Your task to perform on an android device: Open eBay Image 0: 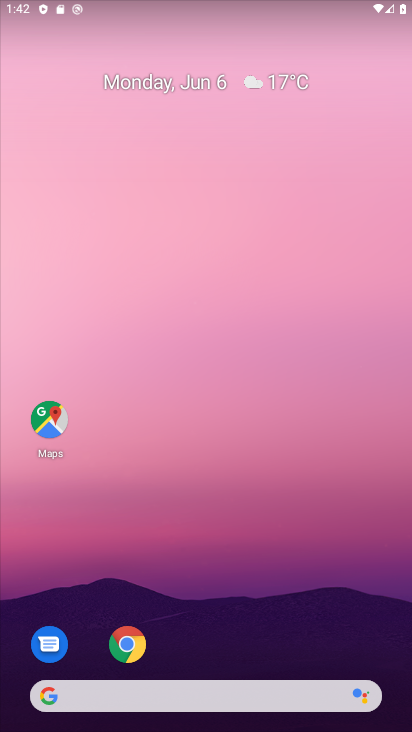
Step 0: click (125, 645)
Your task to perform on an android device: Open eBay Image 1: 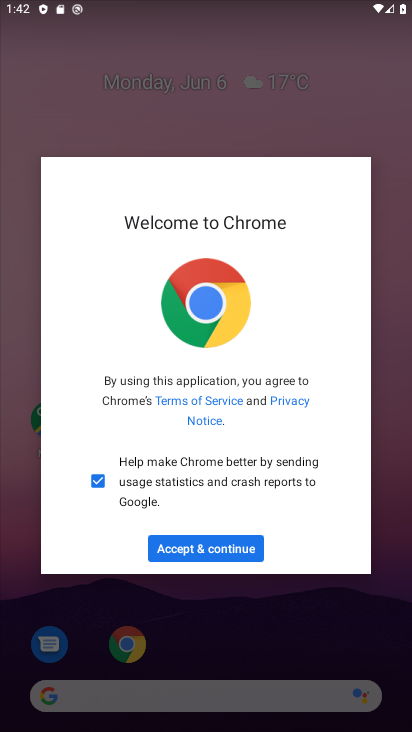
Step 1: press home button
Your task to perform on an android device: Open eBay Image 2: 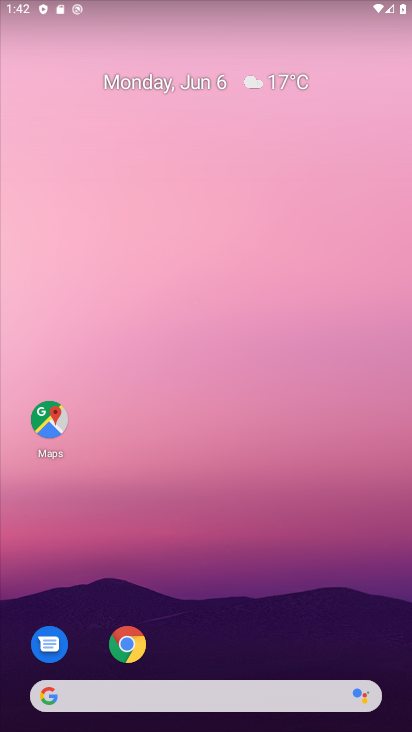
Step 2: click (132, 647)
Your task to perform on an android device: Open eBay Image 3: 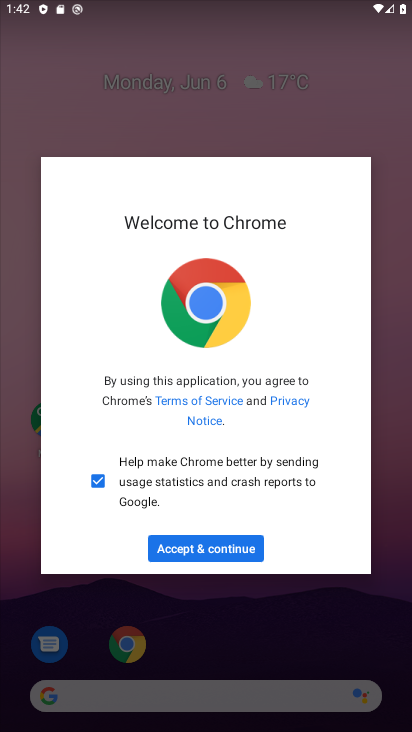
Step 3: click (209, 551)
Your task to perform on an android device: Open eBay Image 4: 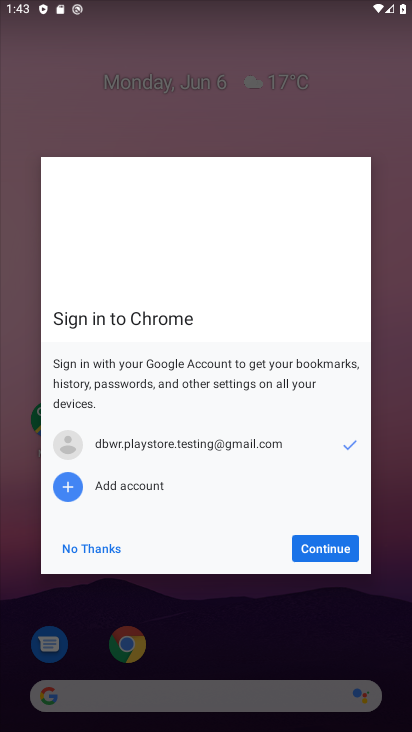
Step 4: click (304, 558)
Your task to perform on an android device: Open eBay Image 5: 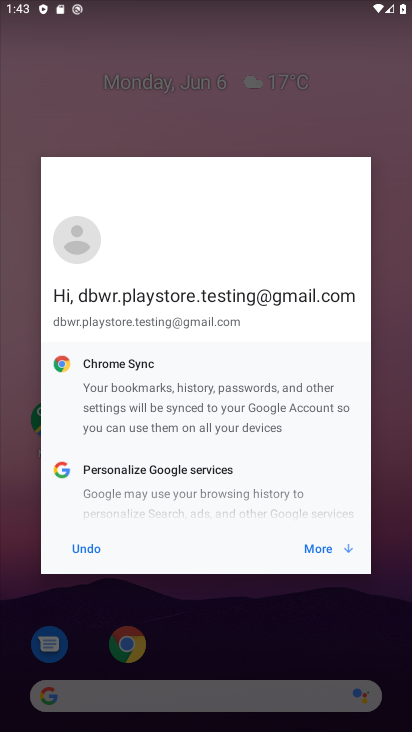
Step 5: click (322, 555)
Your task to perform on an android device: Open eBay Image 6: 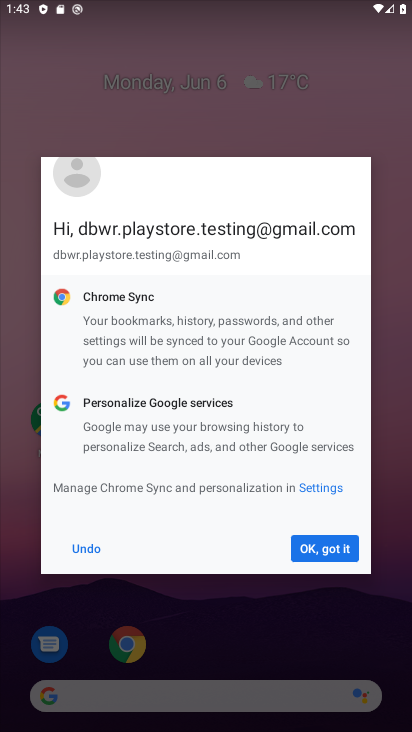
Step 6: click (324, 555)
Your task to perform on an android device: Open eBay Image 7: 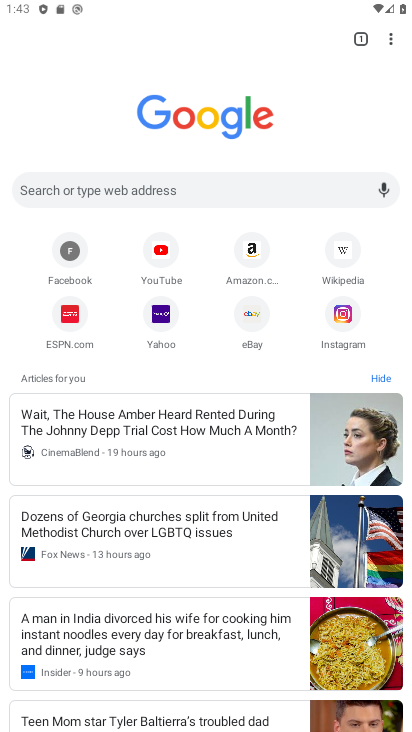
Step 7: click (250, 328)
Your task to perform on an android device: Open eBay Image 8: 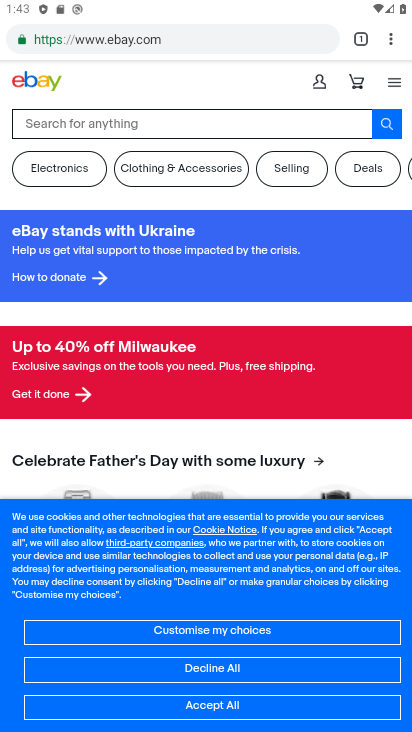
Step 8: click (209, 715)
Your task to perform on an android device: Open eBay Image 9: 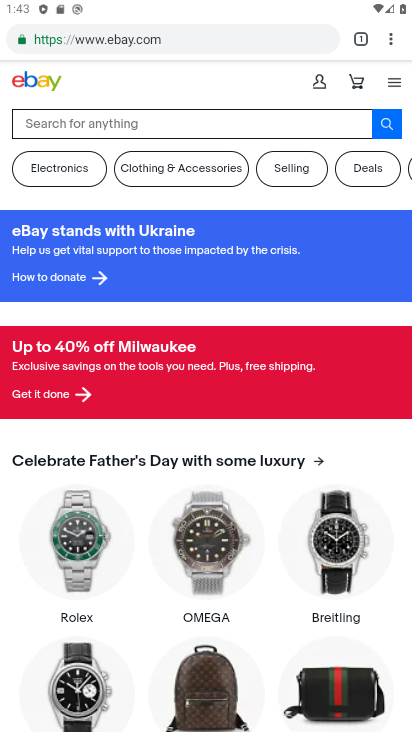
Step 9: task complete